Your task to perform on an android device: turn on improve location accuracy Image 0: 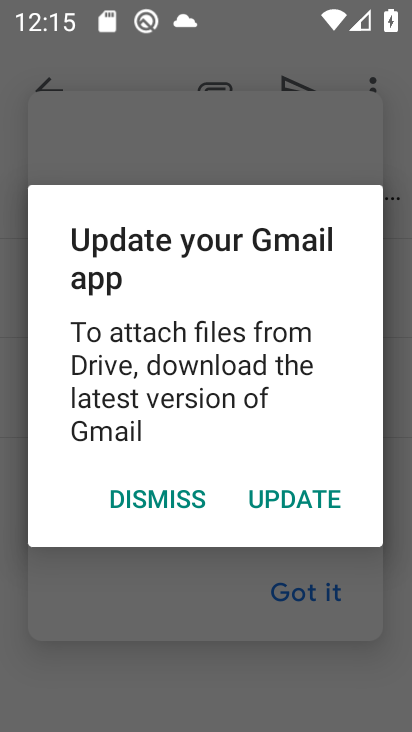
Step 0: press home button
Your task to perform on an android device: turn on improve location accuracy Image 1: 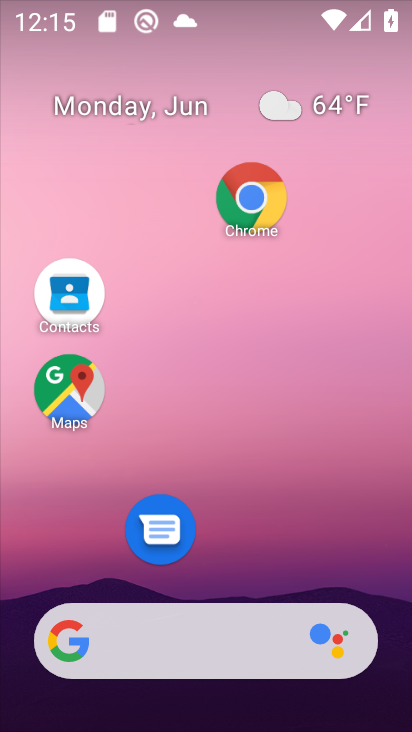
Step 1: drag from (299, 514) to (319, 0)
Your task to perform on an android device: turn on improve location accuracy Image 2: 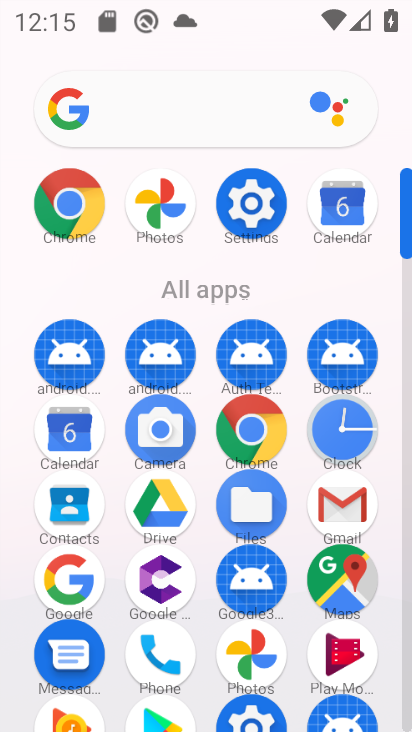
Step 2: click (247, 207)
Your task to perform on an android device: turn on improve location accuracy Image 3: 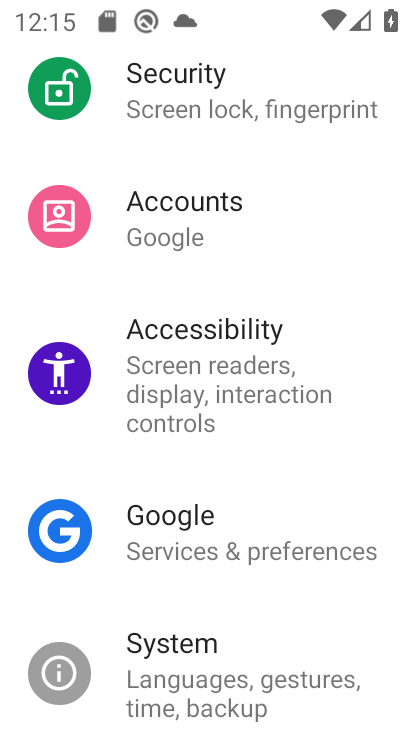
Step 3: drag from (229, 210) to (278, 540)
Your task to perform on an android device: turn on improve location accuracy Image 4: 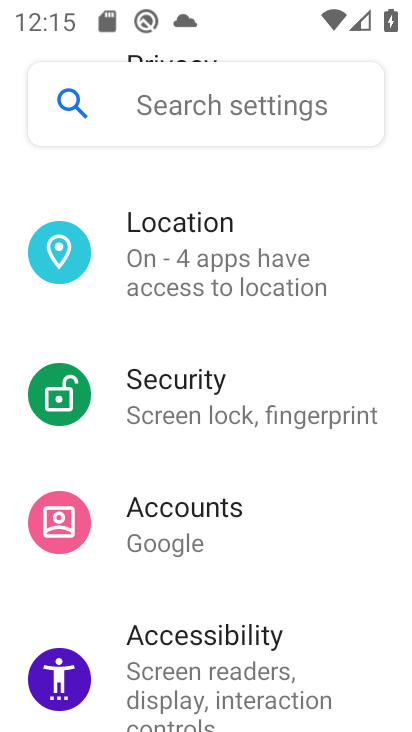
Step 4: click (172, 245)
Your task to perform on an android device: turn on improve location accuracy Image 5: 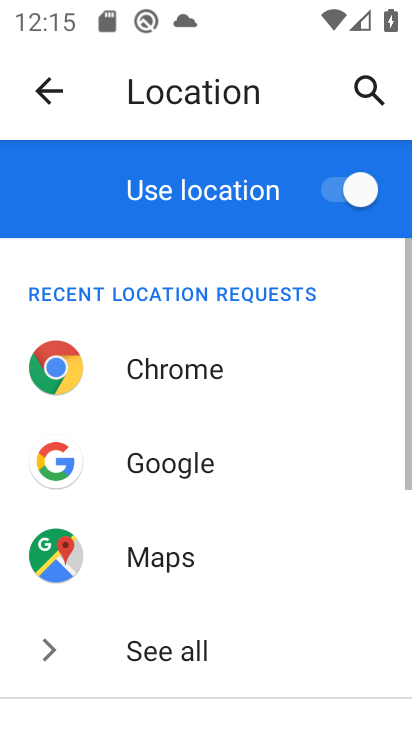
Step 5: drag from (266, 665) to (284, 82)
Your task to perform on an android device: turn on improve location accuracy Image 6: 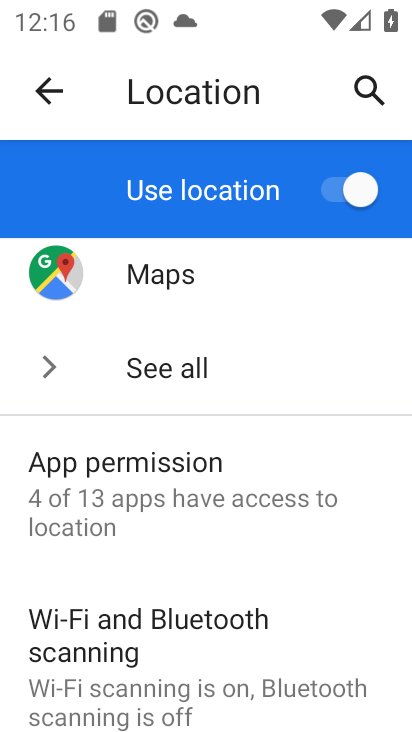
Step 6: drag from (217, 669) to (250, 298)
Your task to perform on an android device: turn on improve location accuracy Image 7: 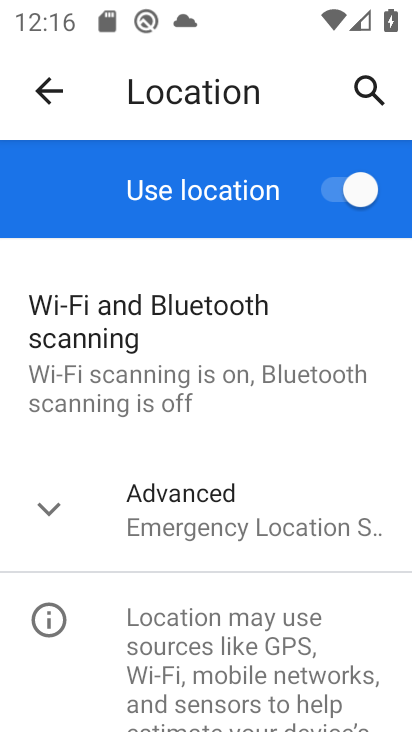
Step 7: click (204, 486)
Your task to perform on an android device: turn on improve location accuracy Image 8: 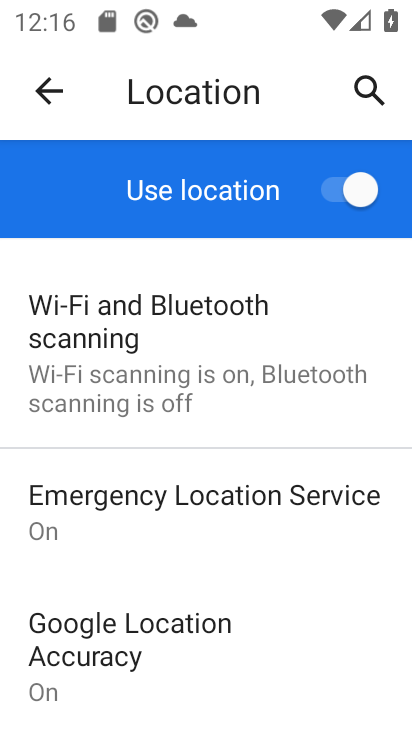
Step 8: click (114, 653)
Your task to perform on an android device: turn on improve location accuracy Image 9: 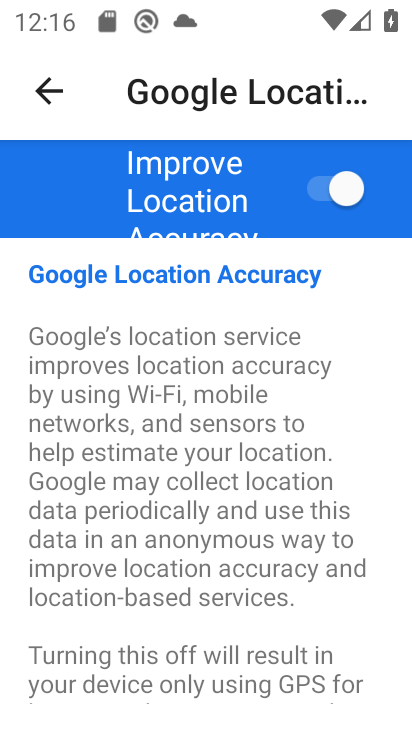
Step 9: task complete